Your task to perform on an android device: change the upload size in google photos Image 0: 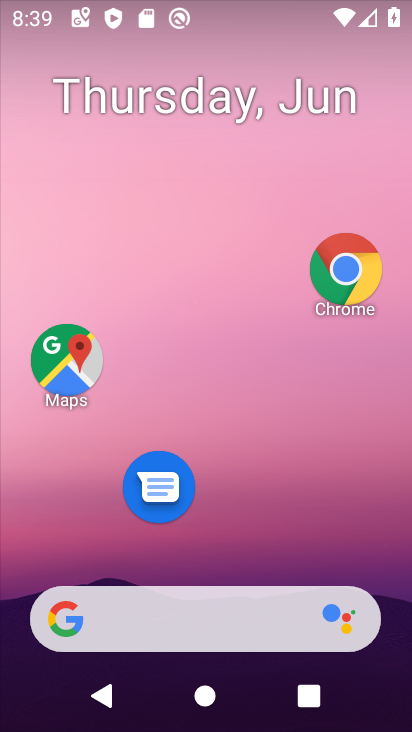
Step 0: drag from (207, 549) to (264, 730)
Your task to perform on an android device: change the upload size in google photos Image 1: 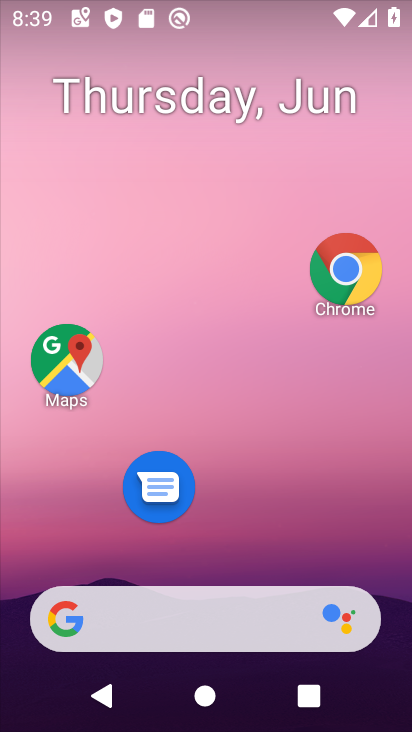
Step 1: drag from (236, 536) to (282, 66)
Your task to perform on an android device: change the upload size in google photos Image 2: 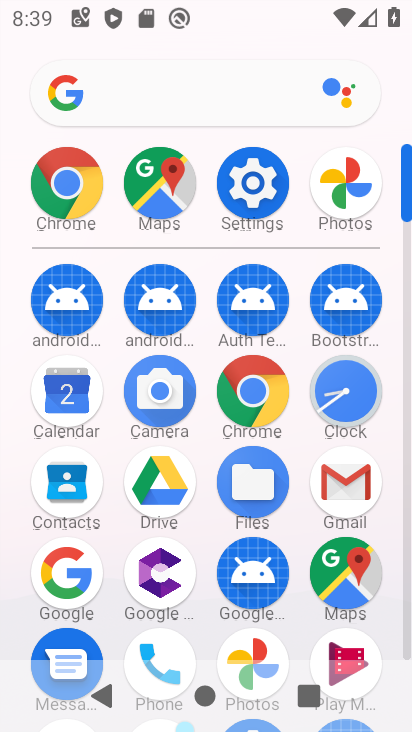
Step 2: click (251, 642)
Your task to perform on an android device: change the upload size in google photos Image 3: 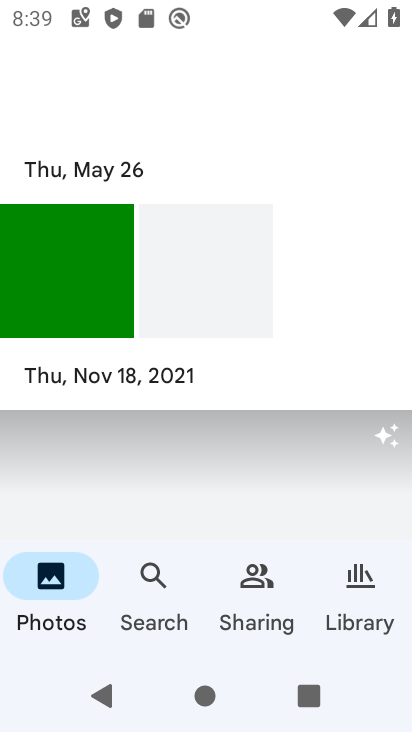
Step 3: drag from (243, 565) to (292, 210)
Your task to perform on an android device: change the upload size in google photos Image 4: 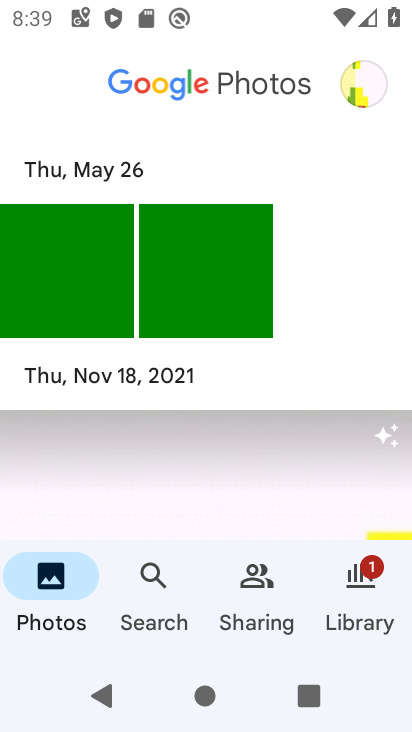
Step 4: drag from (191, 444) to (309, 31)
Your task to perform on an android device: change the upload size in google photos Image 5: 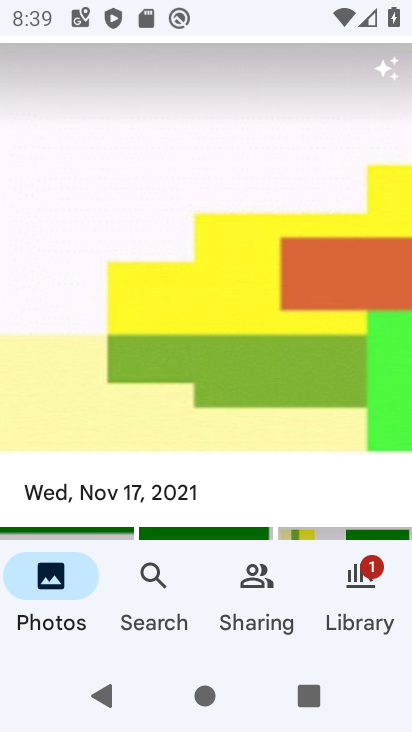
Step 5: drag from (196, 479) to (267, 11)
Your task to perform on an android device: change the upload size in google photos Image 6: 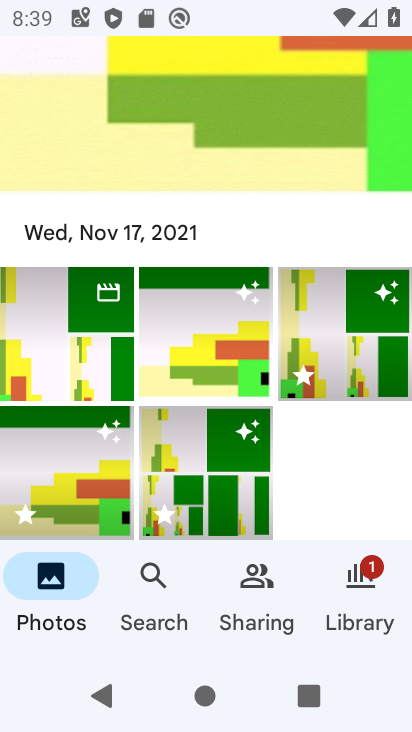
Step 6: drag from (287, 394) to (287, 110)
Your task to perform on an android device: change the upload size in google photos Image 7: 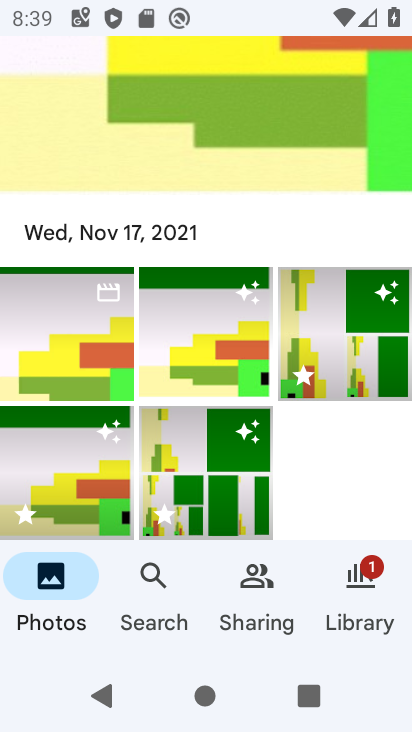
Step 7: drag from (280, 512) to (267, 157)
Your task to perform on an android device: change the upload size in google photos Image 8: 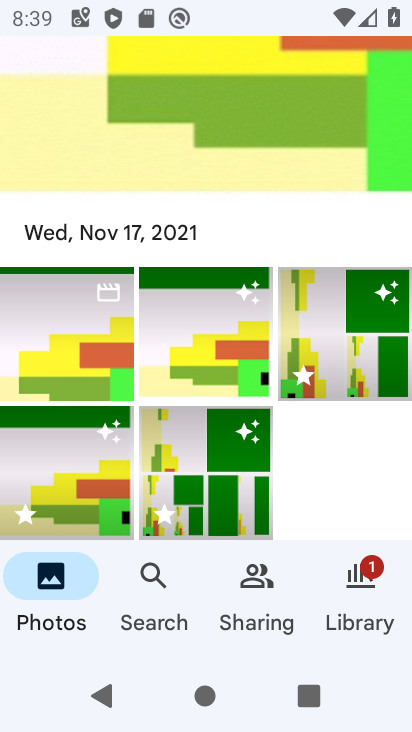
Step 8: drag from (177, 213) to (229, 671)
Your task to perform on an android device: change the upload size in google photos Image 9: 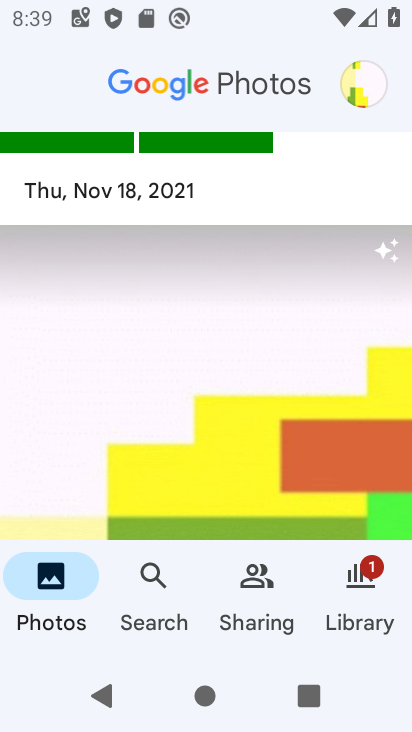
Step 9: drag from (192, 421) to (217, 130)
Your task to perform on an android device: change the upload size in google photos Image 10: 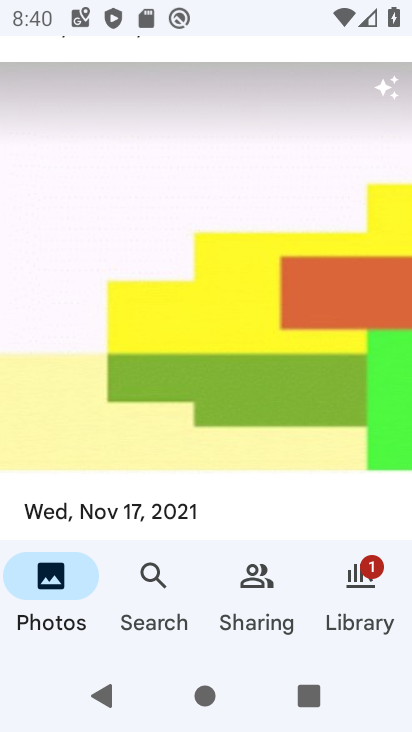
Step 10: drag from (305, 269) to (409, 604)
Your task to perform on an android device: change the upload size in google photos Image 11: 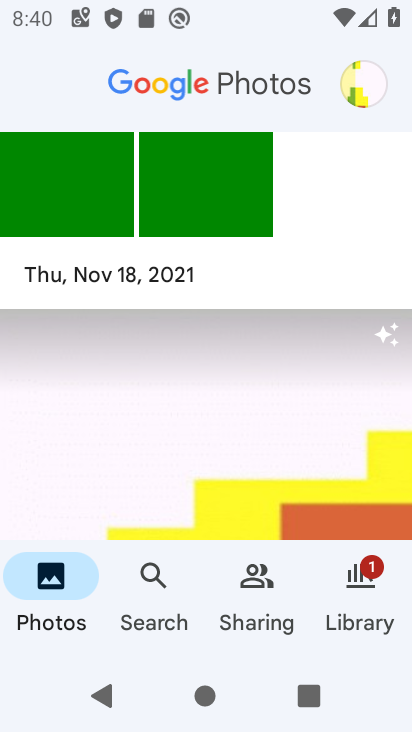
Step 11: click (366, 81)
Your task to perform on an android device: change the upload size in google photos Image 12: 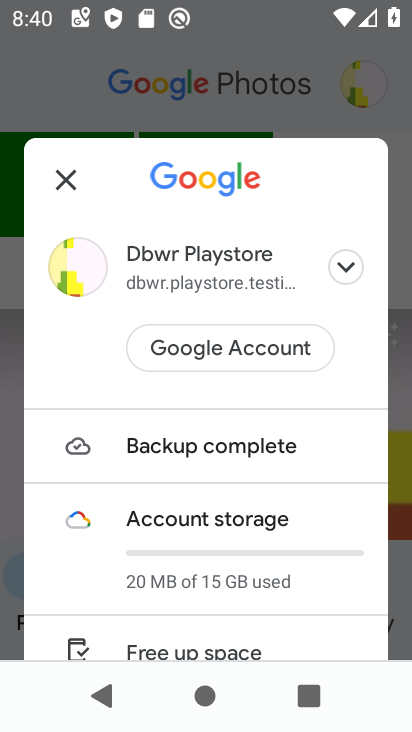
Step 12: drag from (212, 583) to (303, 111)
Your task to perform on an android device: change the upload size in google photos Image 13: 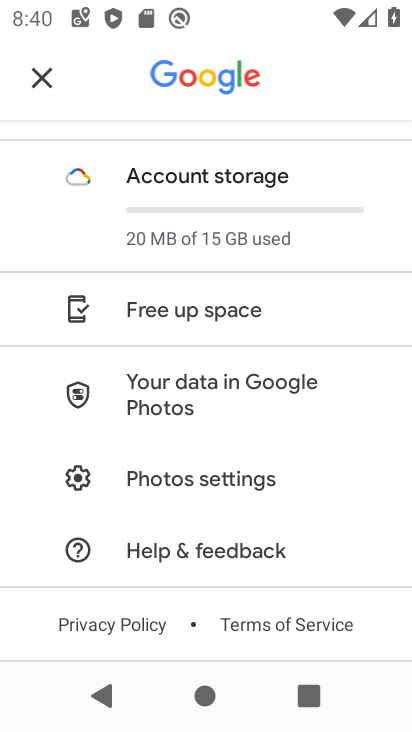
Step 13: click (170, 481)
Your task to perform on an android device: change the upload size in google photos Image 14: 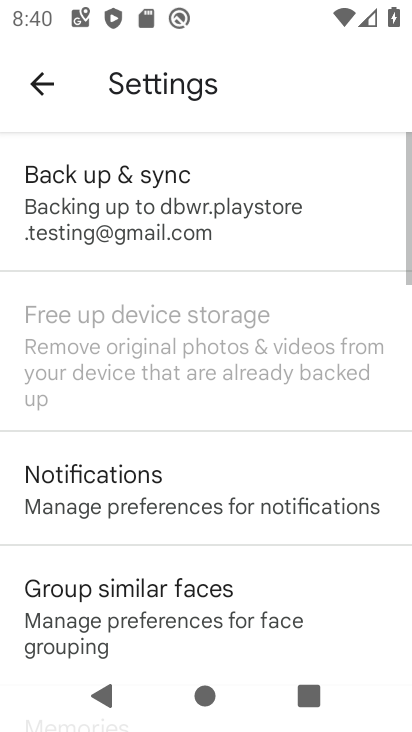
Step 14: click (204, 222)
Your task to perform on an android device: change the upload size in google photos Image 15: 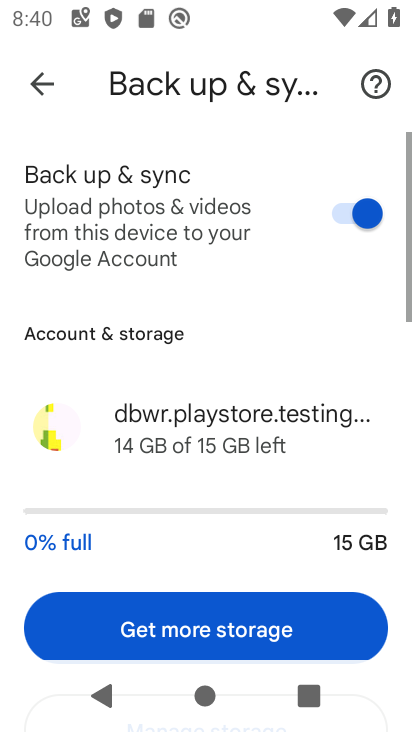
Step 15: drag from (220, 549) to (273, 223)
Your task to perform on an android device: change the upload size in google photos Image 16: 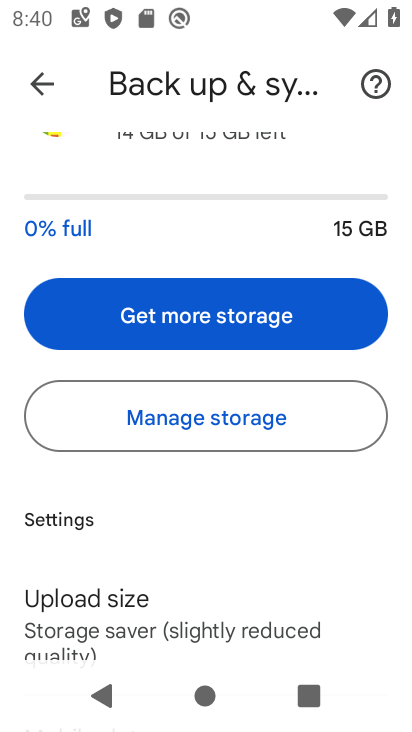
Step 16: drag from (216, 504) to (273, 301)
Your task to perform on an android device: change the upload size in google photos Image 17: 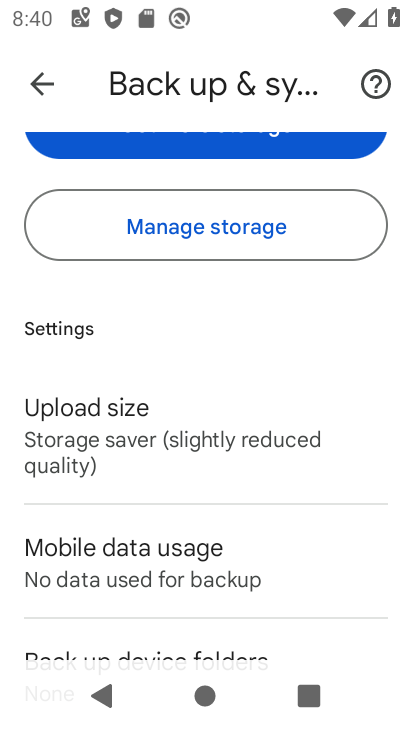
Step 17: drag from (196, 540) to (265, 270)
Your task to perform on an android device: change the upload size in google photos Image 18: 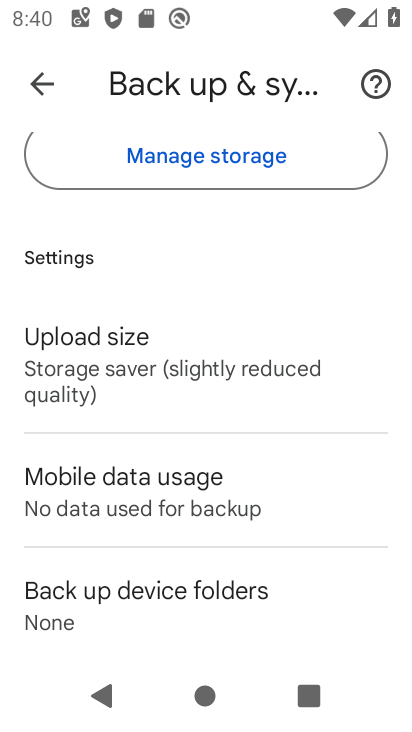
Step 18: click (157, 361)
Your task to perform on an android device: change the upload size in google photos Image 19: 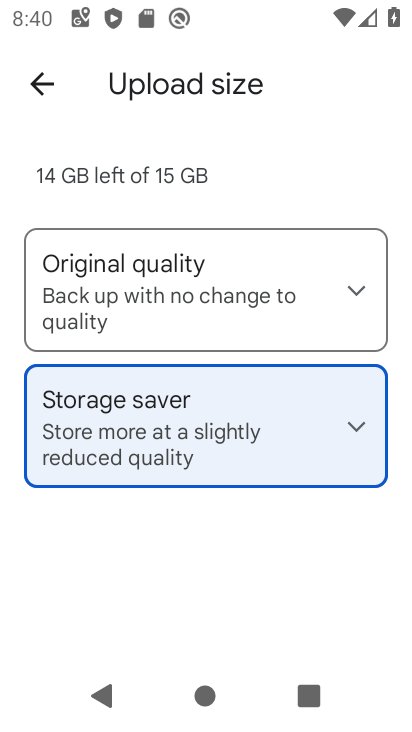
Step 19: click (190, 278)
Your task to perform on an android device: change the upload size in google photos Image 20: 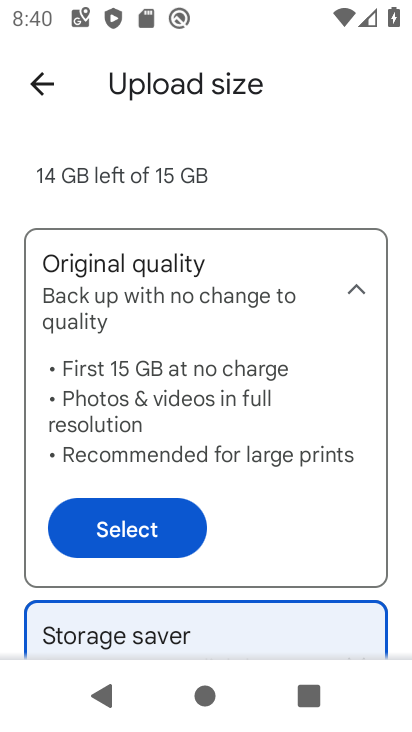
Step 20: click (147, 526)
Your task to perform on an android device: change the upload size in google photos Image 21: 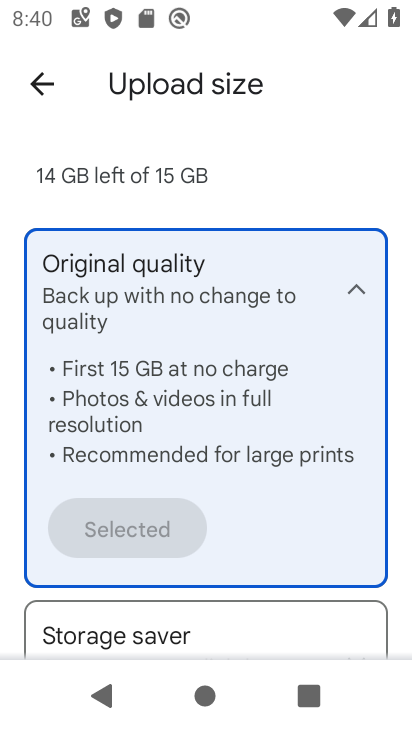
Step 21: drag from (246, 574) to (314, 37)
Your task to perform on an android device: change the upload size in google photos Image 22: 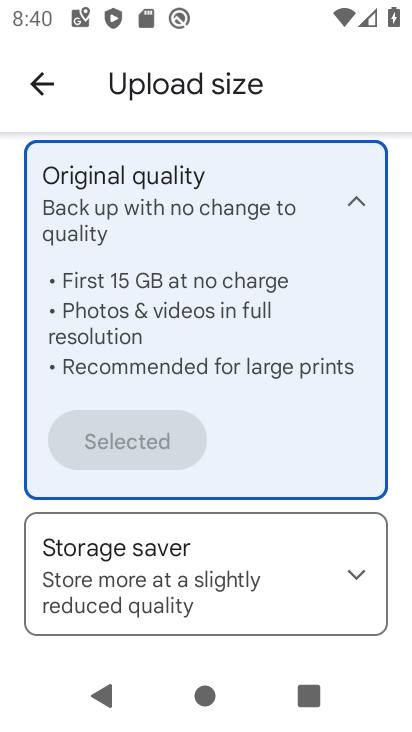
Step 22: click (97, 423)
Your task to perform on an android device: change the upload size in google photos Image 23: 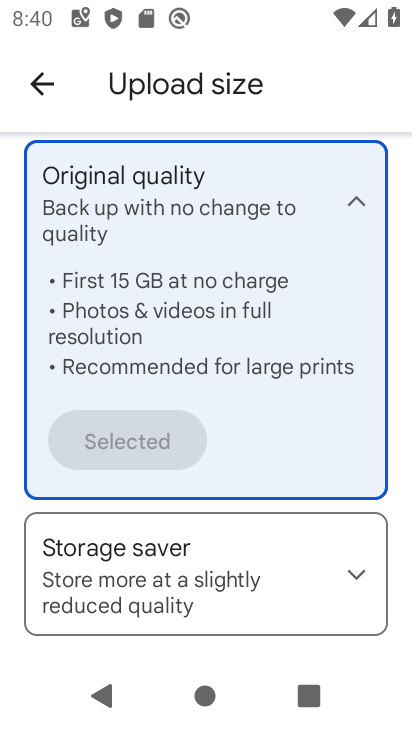
Step 23: task complete